Your task to perform on an android device: Open Android settings Image 0: 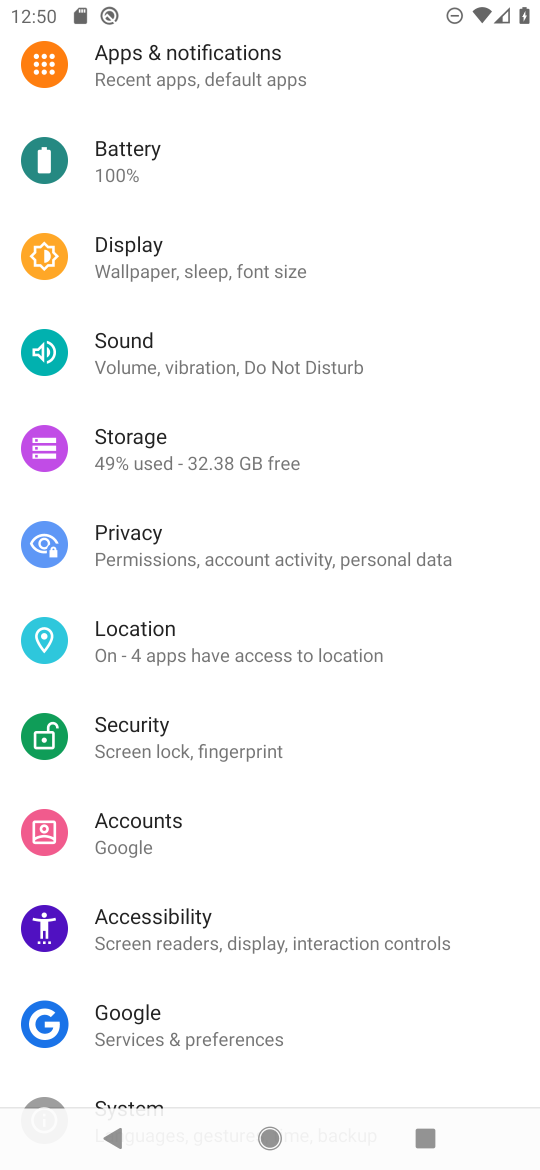
Step 0: task complete